Your task to perform on an android device: Open Wikipedia Image 0: 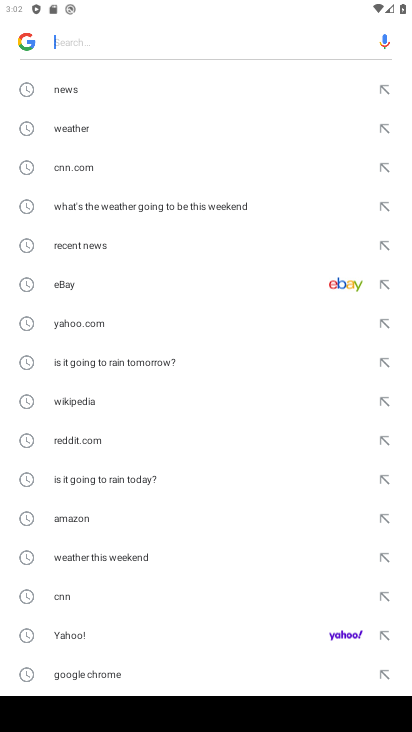
Step 0: press home button
Your task to perform on an android device: Open Wikipedia Image 1: 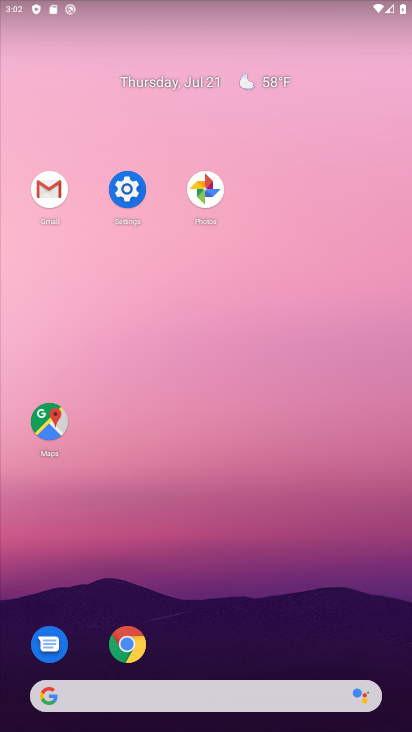
Step 1: click (133, 633)
Your task to perform on an android device: Open Wikipedia Image 2: 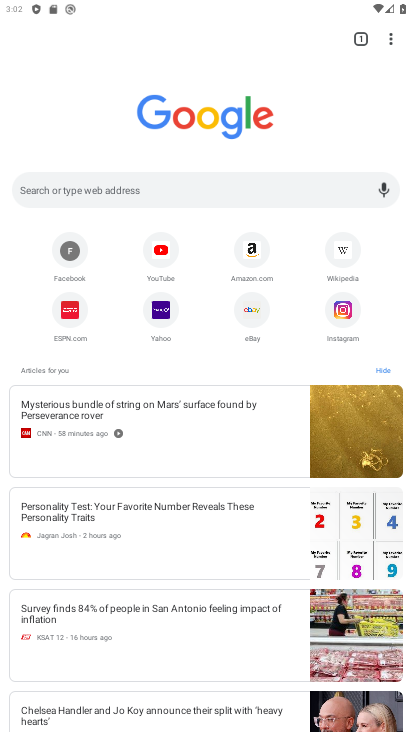
Step 2: click (341, 238)
Your task to perform on an android device: Open Wikipedia Image 3: 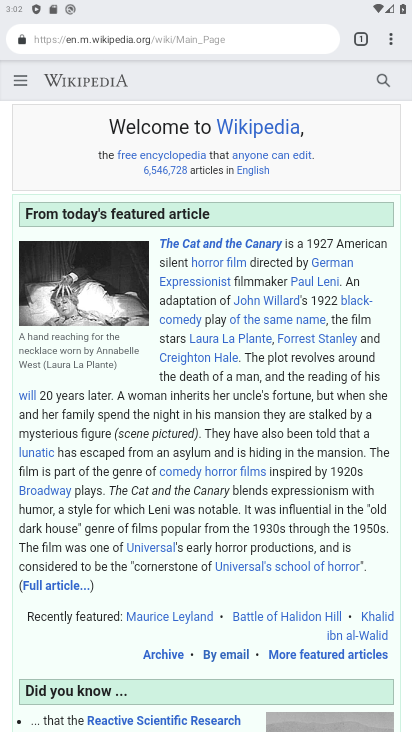
Step 3: task complete